Your task to perform on an android device: star an email in the gmail app Image 0: 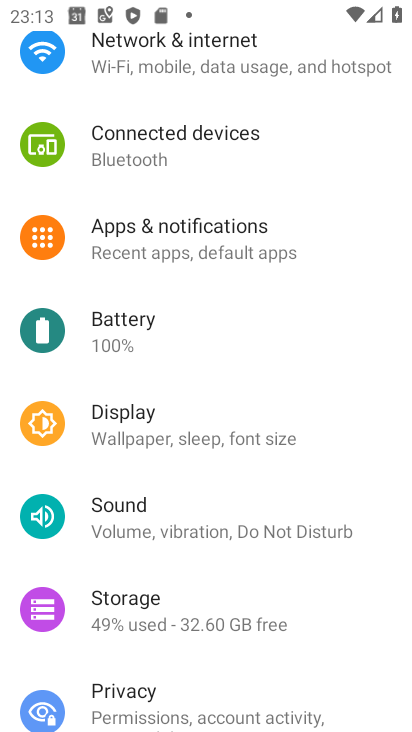
Step 0: press home button
Your task to perform on an android device: star an email in the gmail app Image 1: 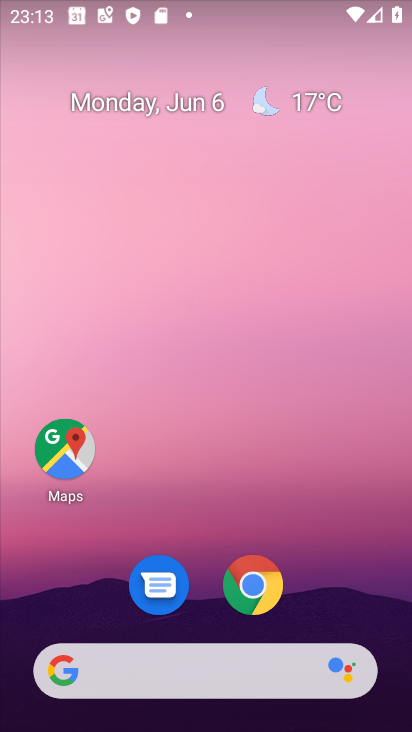
Step 1: drag from (217, 495) to (253, 0)
Your task to perform on an android device: star an email in the gmail app Image 2: 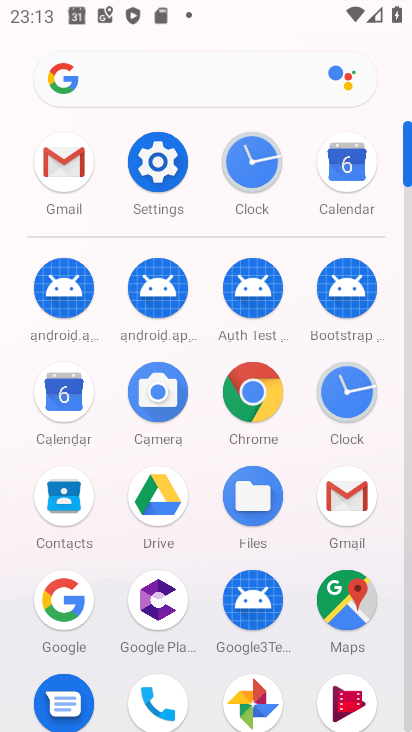
Step 2: click (69, 171)
Your task to perform on an android device: star an email in the gmail app Image 3: 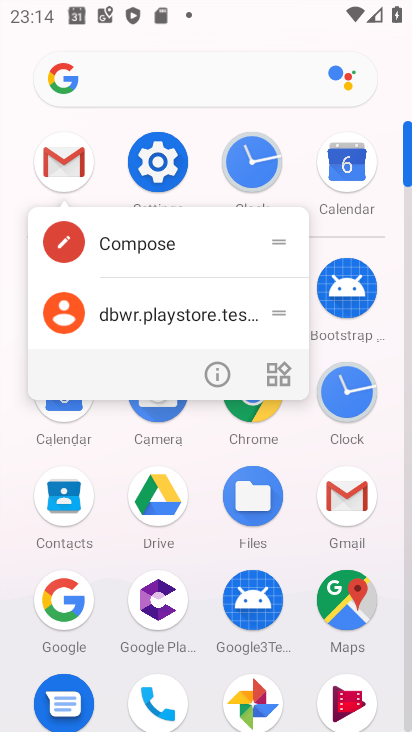
Step 3: click (60, 160)
Your task to perform on an android device: star an email in the gmail app Image 4: 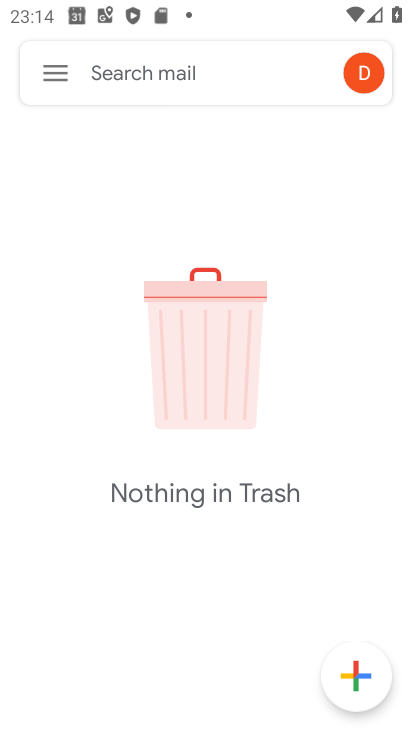
Step 4: click (49, 70)
Your task to perform on an android device: star an email in the gmail app Image 5: 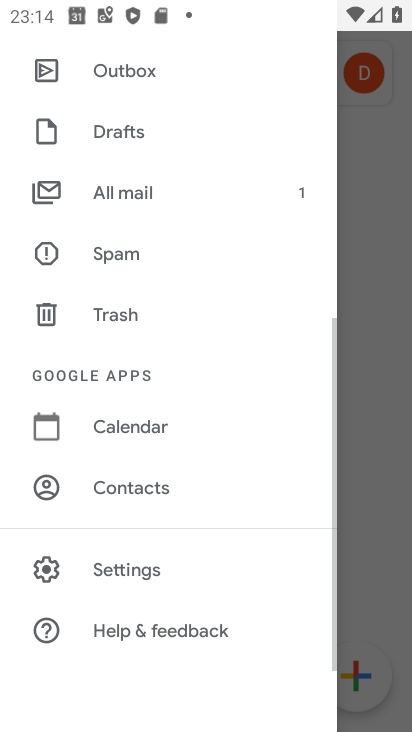
Step 5: click (119, 182)
Your task to perform on an android device: star an email in the gmail app Image 6: 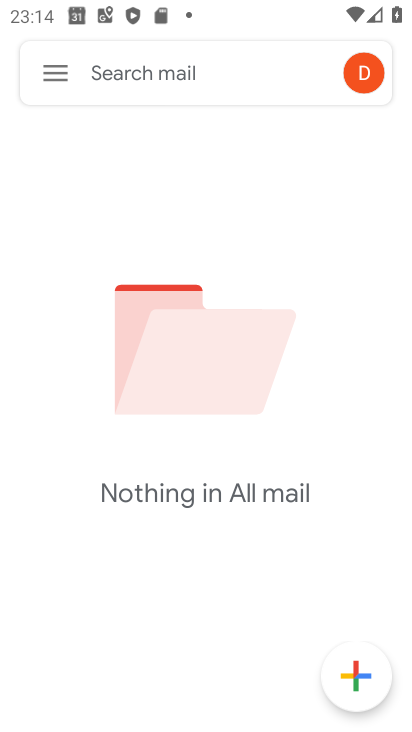
Step 6: task complete